Your task to perform on an android device: turn on showing notifications on the lock screen Image 0: 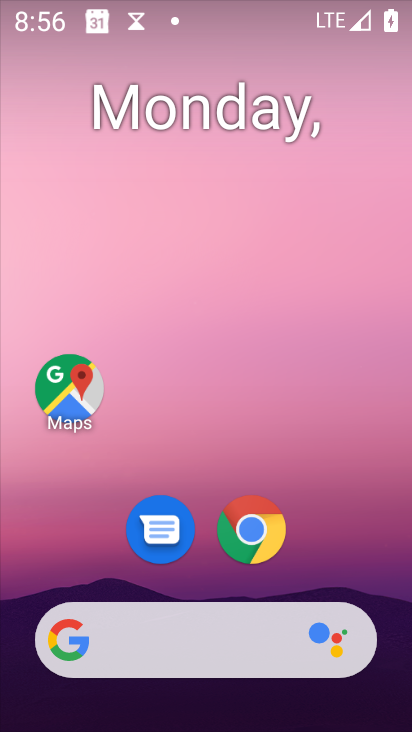
Step 0: press home button
Your task to perform on an android device: turn on showing notifications on the lock screen Image 1: 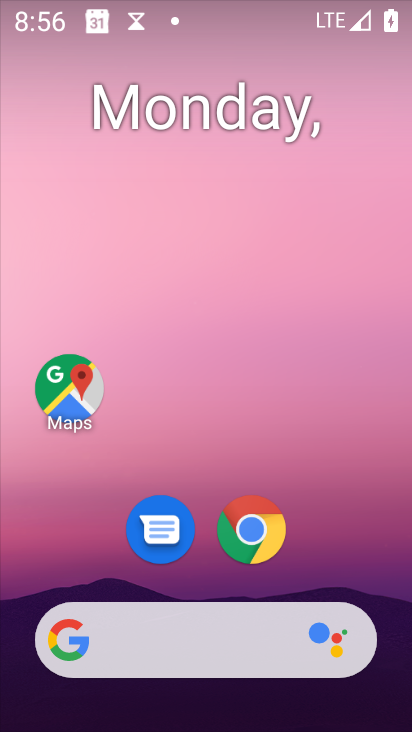
Step 1: drag from (12, 625) to (266, 221)
Your task to perform on an android device: turn on showing notifications on the lock screen Image 2: 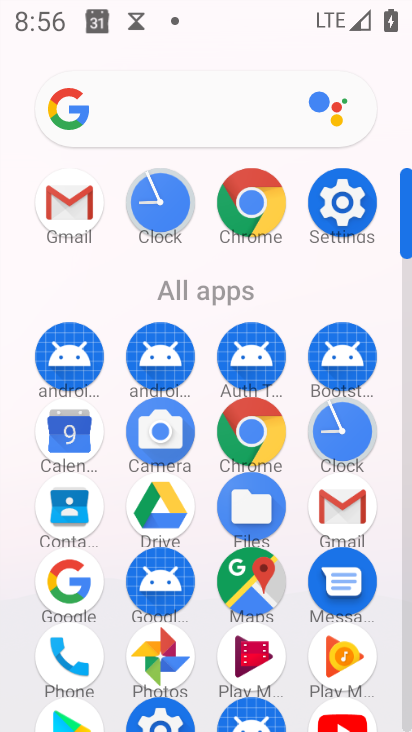
Step 2: click (328, 211)
Your task to perform on an android device: turn on showing notifications on the lock screen Image 3: 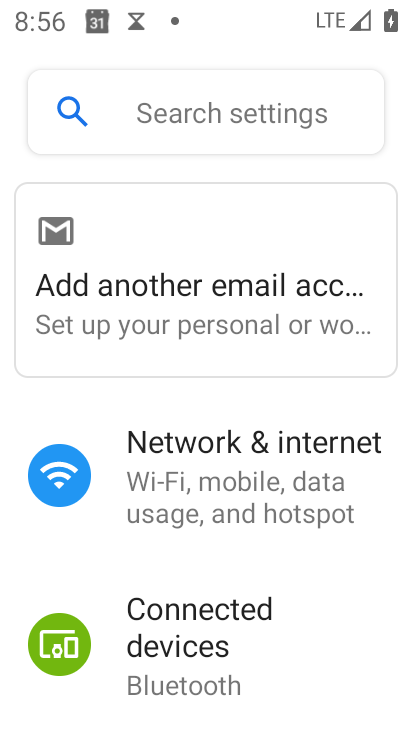
Step 3: drag from (183, 618) to (335, 176)
Your task to perform on an android device: turn on showing notifications on the lock screen Image 4: 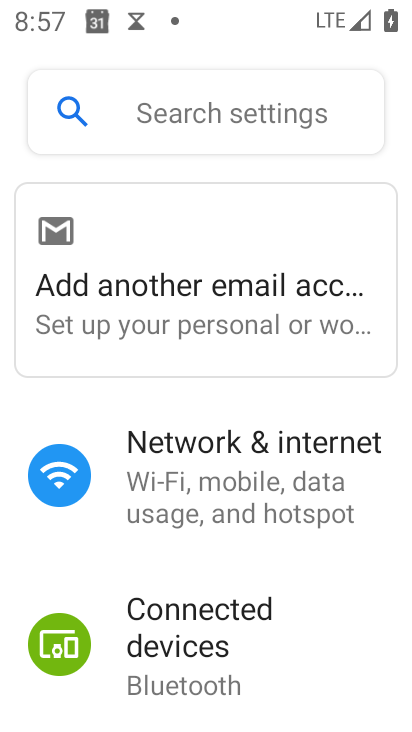
Step 4: drag from (66, 692) to (251, 281)
Your task to perform on an android device: turn on showing notifications on the lock screen Image 5: 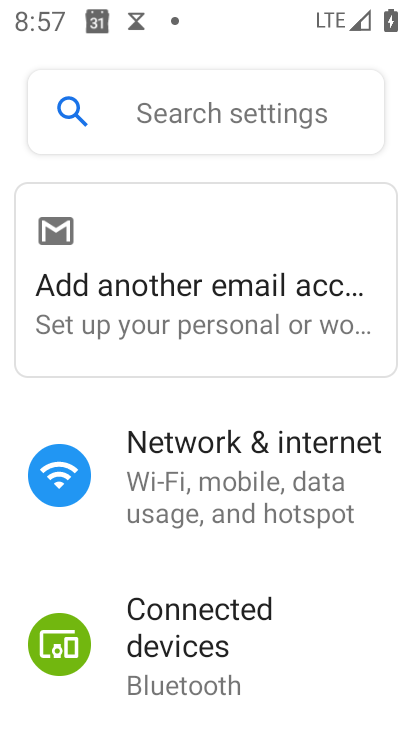
Step 5: drag from (121, 687) to (356, 259)
Your task to perform on an android device: turn on showing notifications on the lock screen Image 6: 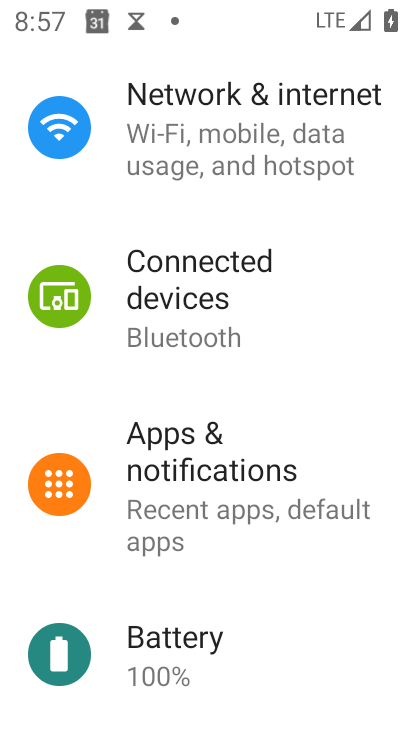
Step 6: click (200, 470)
Your task to perform on an android device: turn on showing notifications on the lock screen Image 7: 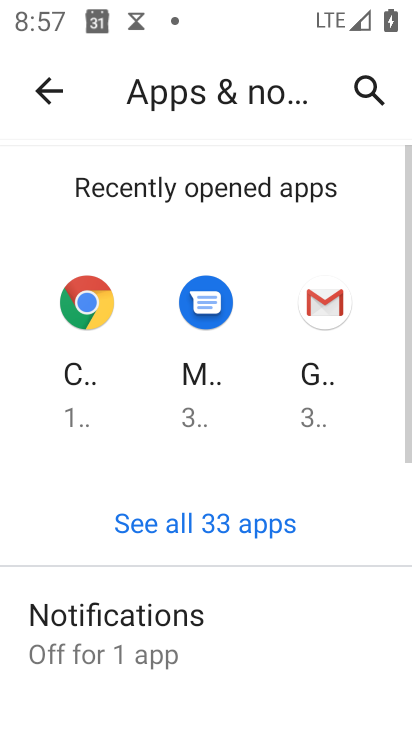
Step 7: click (140, 633)
Your task to perform on an android device: turn on showing notifications on the lock screen Image 8: 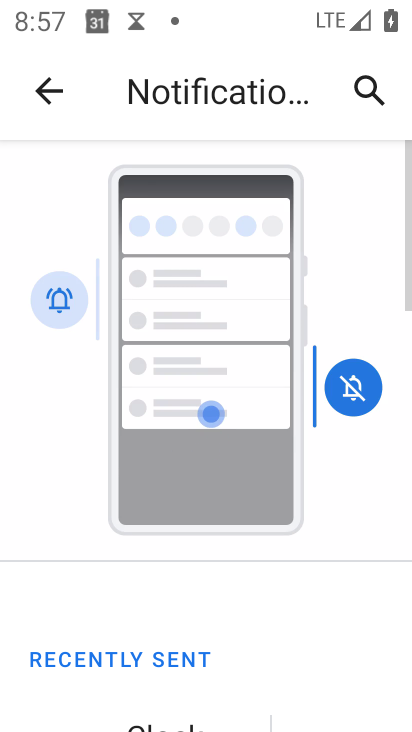
Step 8: drag from (126, 722) to (228, 211)
Your task to perform on an android device: turn on showing notifications on the lock screen Image 9: 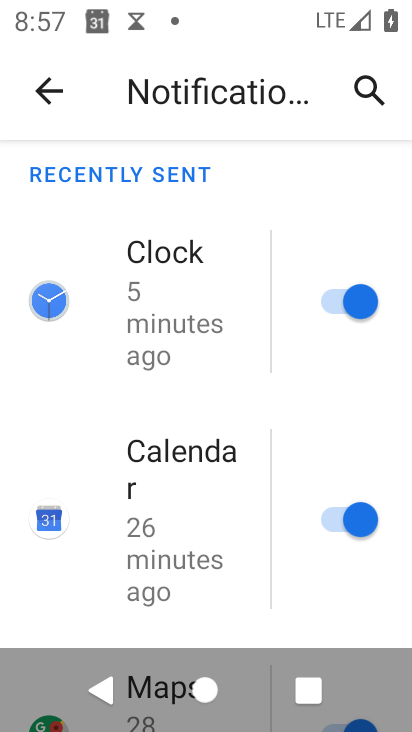
Step 9: drag from (2, 717) to (137, 347)
Your task to perform on an android device: turn on showing notifications on the lock screen Image 10: 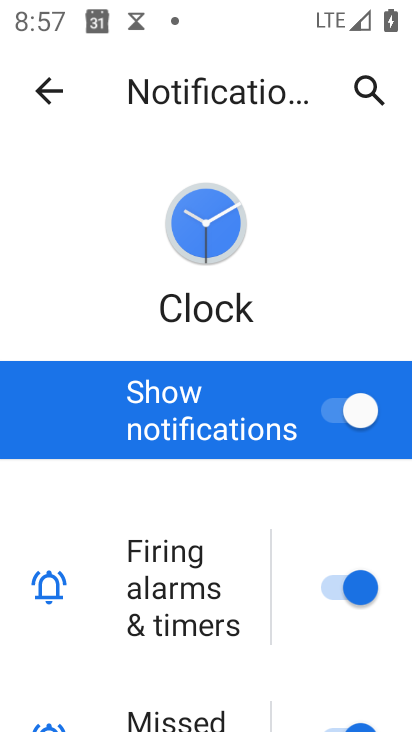
Step 10: press back button
Your task to perform on an android device: turn on showing notifications on the lock screen Image 11: 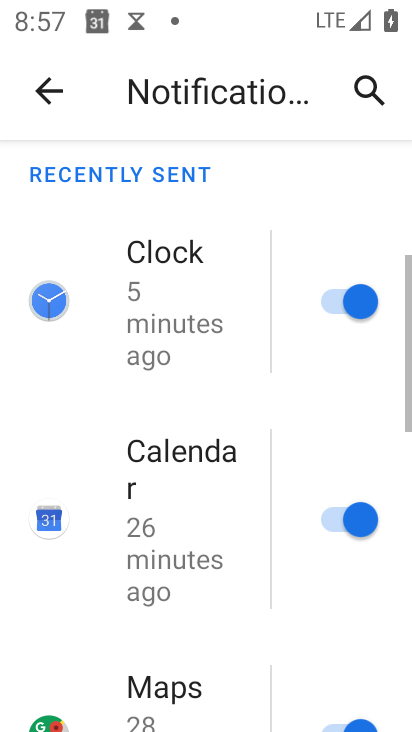
Step 11: drag from (58, 661) to (235, 188)
Your task to perform on an android device: turn on showing notifications on the lock screen Image 12: 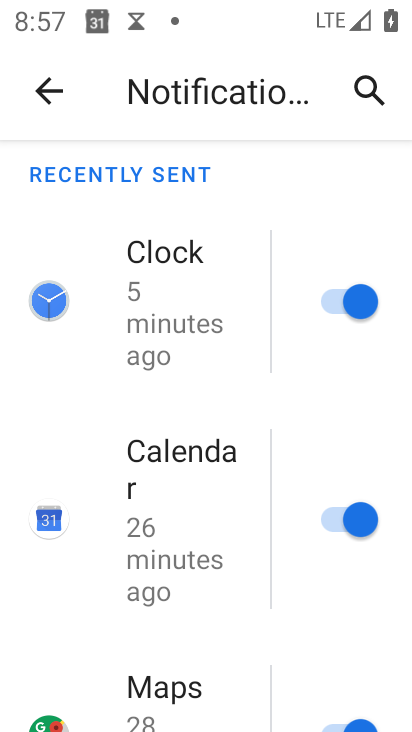
Step 12: drag from (4, 465) to (270, 132)
Your task to perform on an android device: turn on showing notifications on the lock screen Image 13: 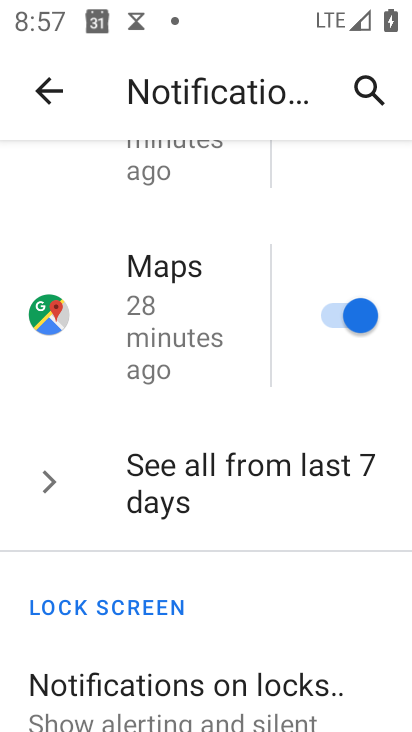
Step 13: click (152, 697)
Your task to perform on an android device: turn on showing notifications on the lock screen Image 14: 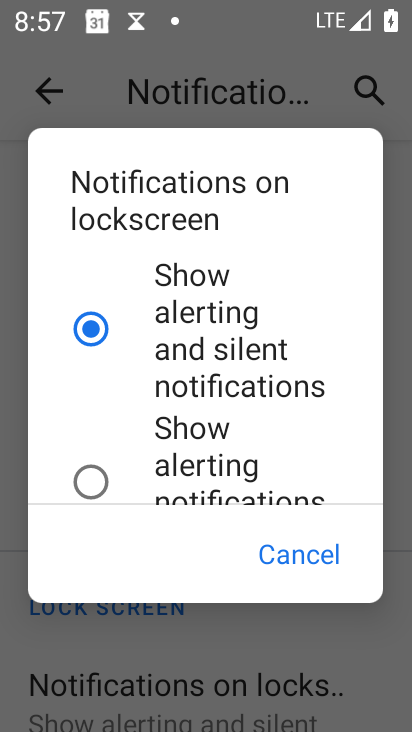
Step 14: task complete